Your task to perform on an android device: set the stopwatch Image 0: 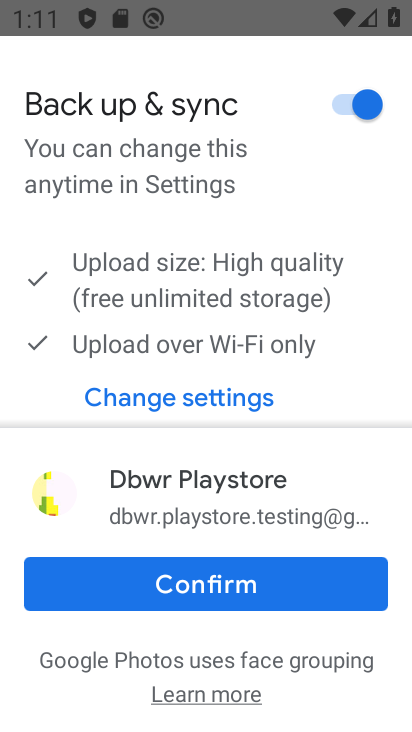
Step 0: press home button
Your task to perform on an android device: set the stopwatch Image 1: 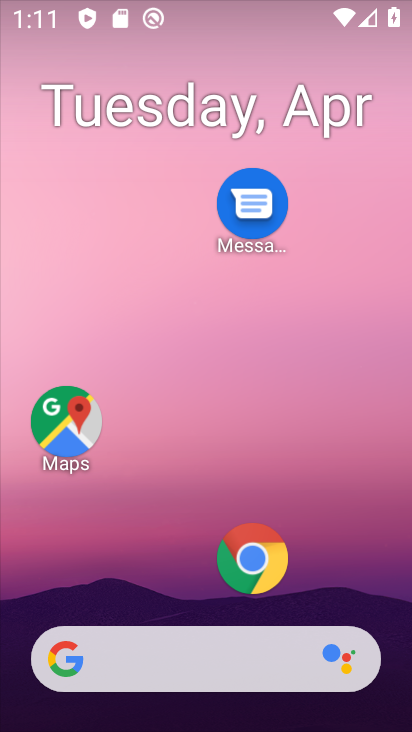
Step 1: drag from (158, 547) to (180, 14)
Your task to perform on an android device: set the stopwatch Image 2: 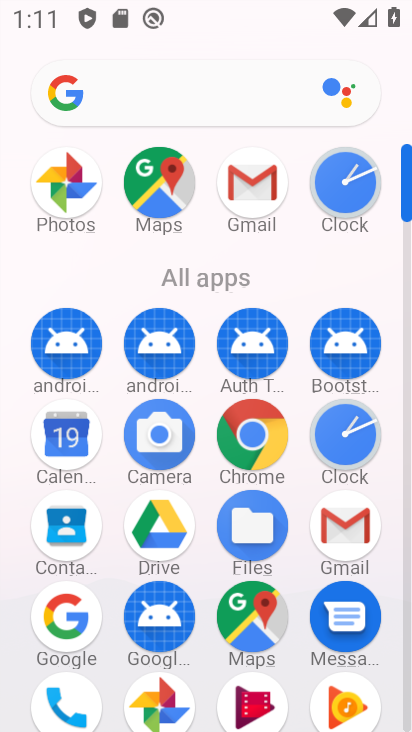
Step 2: drag from (205, 646) to (179, 252)
Your task to perform on an android device: set the stopwatch Image 3: 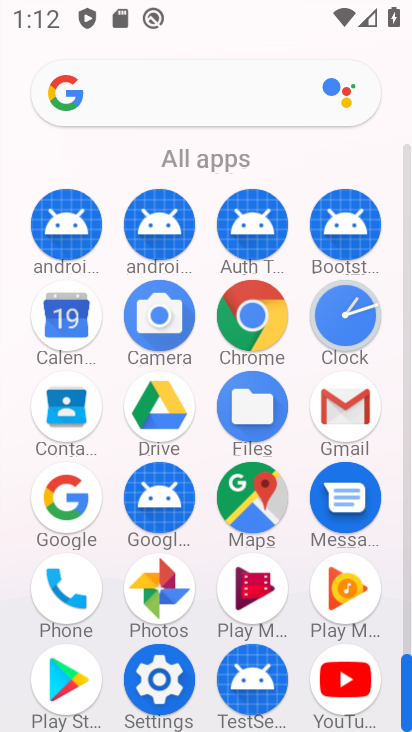
Step 3: click (347, 333)
Your task to perform on an android device: set the stopwatch Image 4: 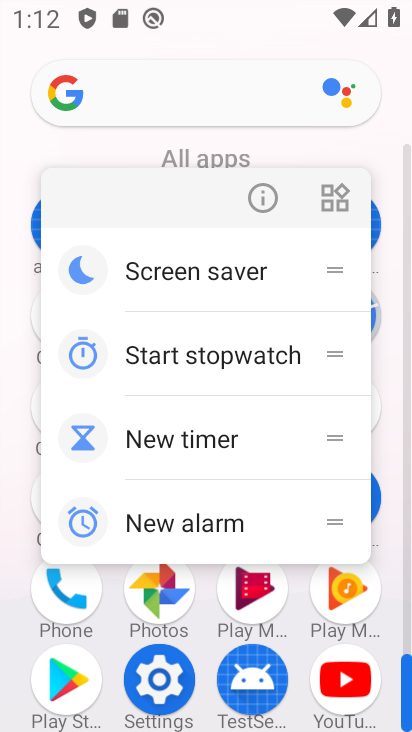
Step 4: click (261, 195)
Your task to perform on an android device: set the stopwatch Image 5: 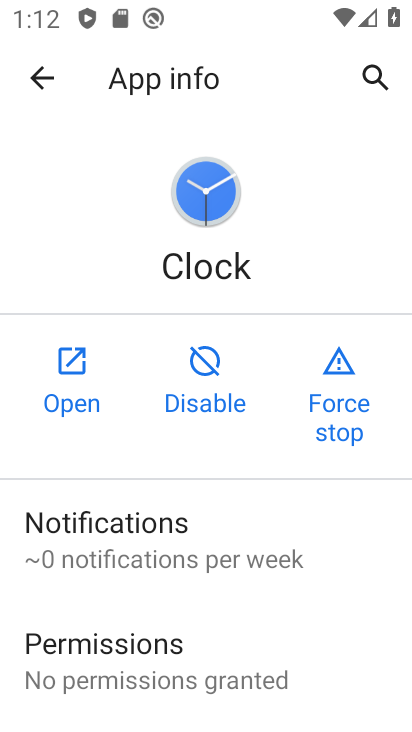
Step 5: click (64, 381)
Your task to perform on an android device: set the stopwatch Image 6: 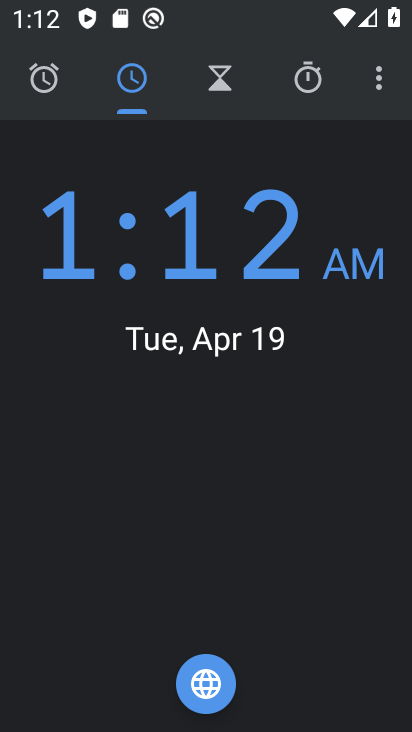
Step 6: click (392, 94)
Your task to perform on an android device: set the stopwatch Image 7: 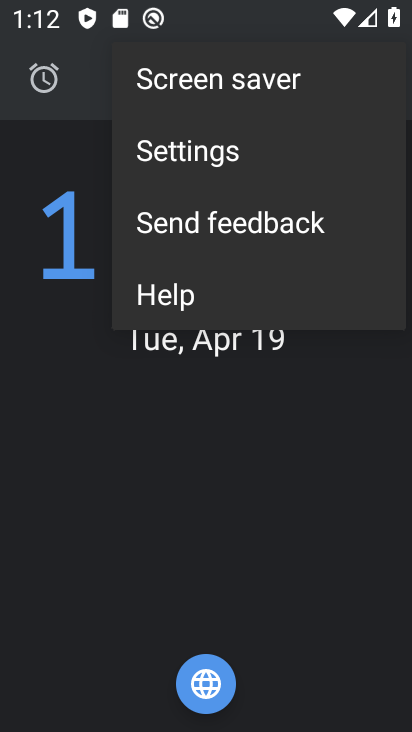
Step 7: click (241, 156)
Your task to perform on an android device: set the stopwatch Image 8: 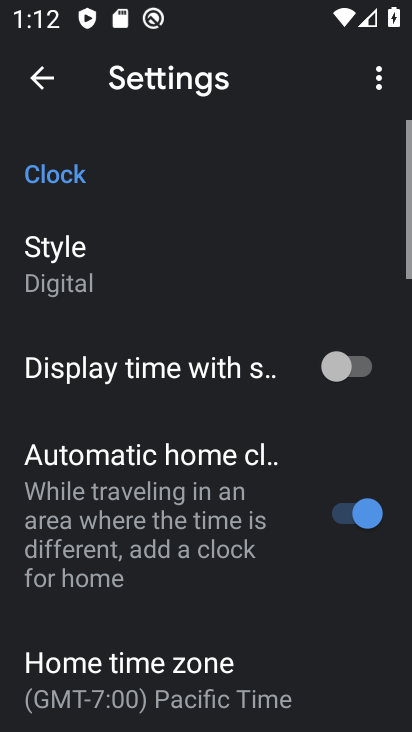
Step 8: click (46, 69)
Your task to perform on an android device: set the stopwatch Image 9: 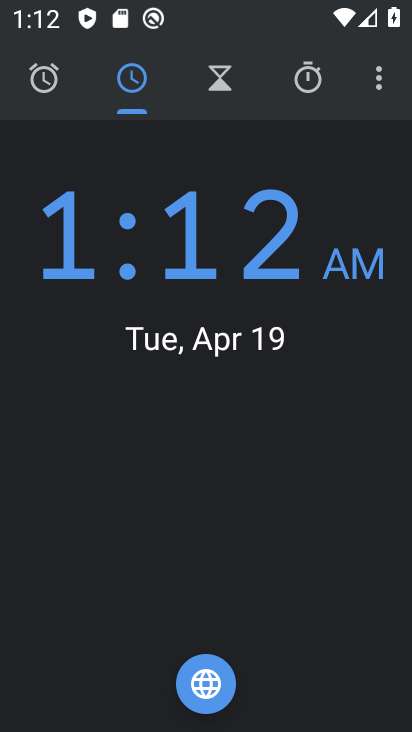
Step 9: click (328, 88)
Your task to perform on an android device: set the stopwatch Image 10: 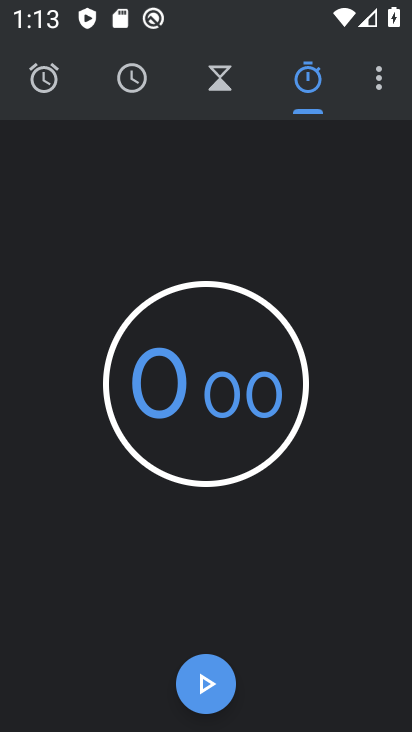
Step 10: click (205, 677)
Your task to perform on an android device: set the stopwatch Image 11: 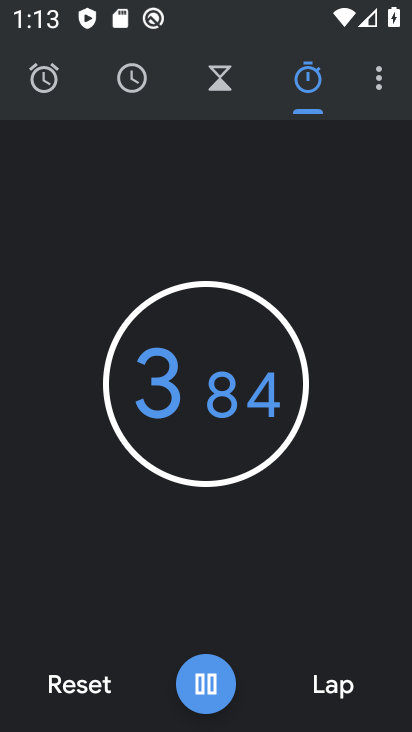
Step 11: task complete